Your task to perform on an android device: check battery use Image 0: 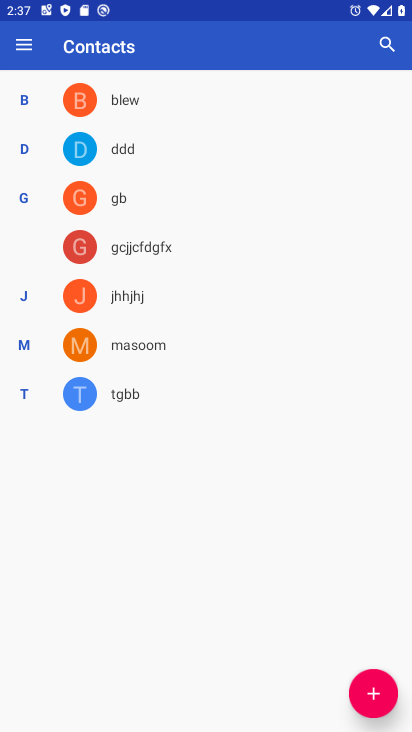
Step 0: press home button
Your task to perform on an android device: check battery use Image 1: 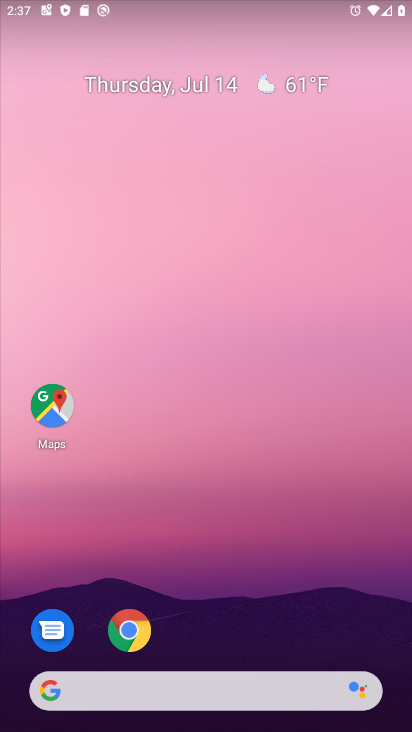
Step 1: drag from (175, 677) to (257, 114)
Your task to perform on an android device: check battery use Image 2: 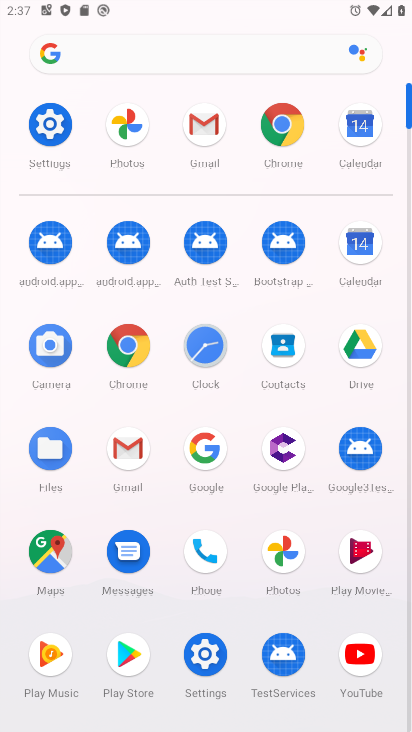
Step 2: click (51, 126)
Your task to perform on an android device: check battery use Image 3: 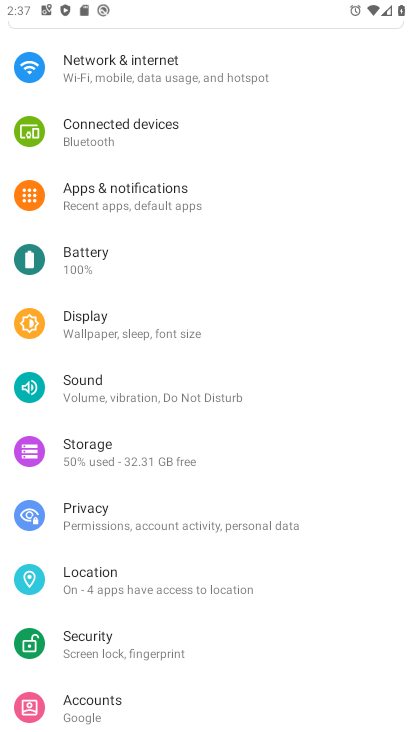
Step 3: click (81, 259)
Your task to perform on an android device: check battery use Image 4: 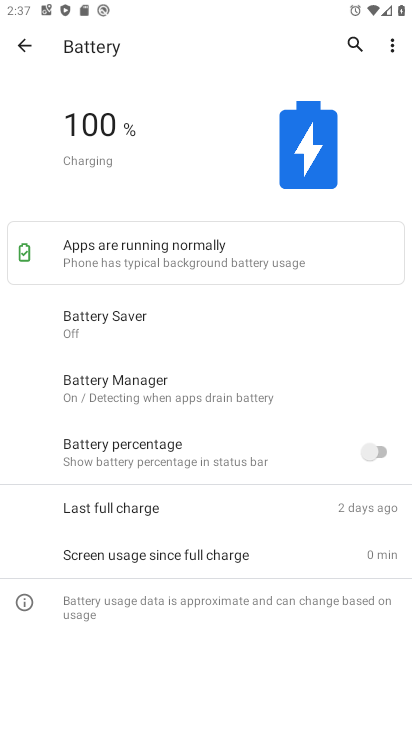
Step 4: click (392, 44)
Your task to perform on an android device: check battery use Image 5: 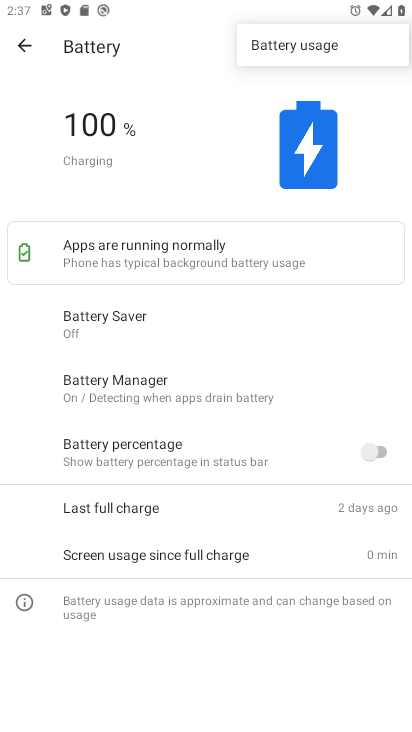
Step 5: click (279, 44)
Your task to perform on an android device: check battery use Image 6: 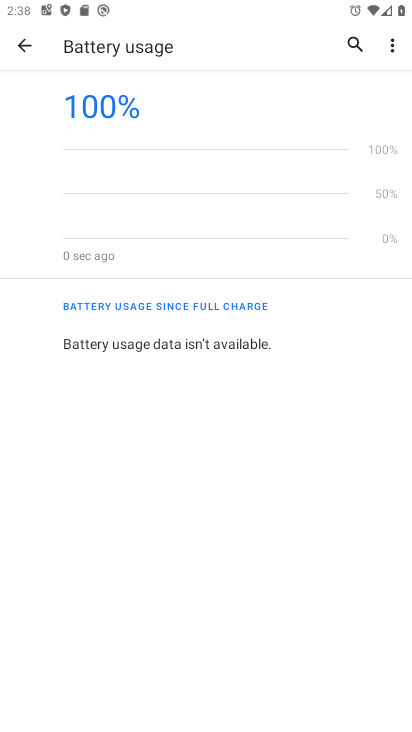
Step 6: task complete